Your task to perform on an android device: Go to notification settings Image 0: 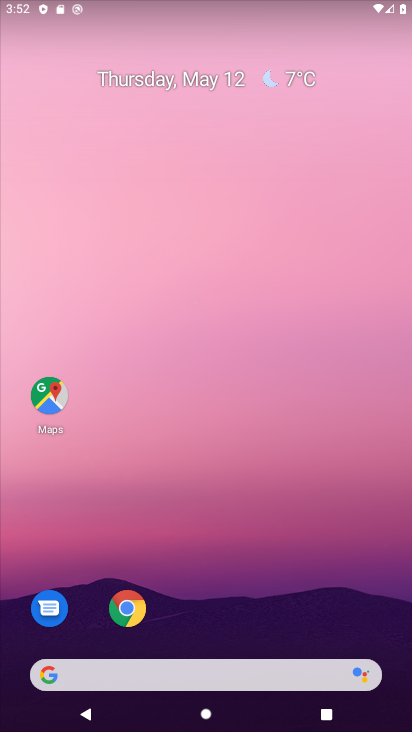
Step 0: drag from (340, 430) to (324, 27)
Your task to perform on an android device: Go to notification settings Image 1: 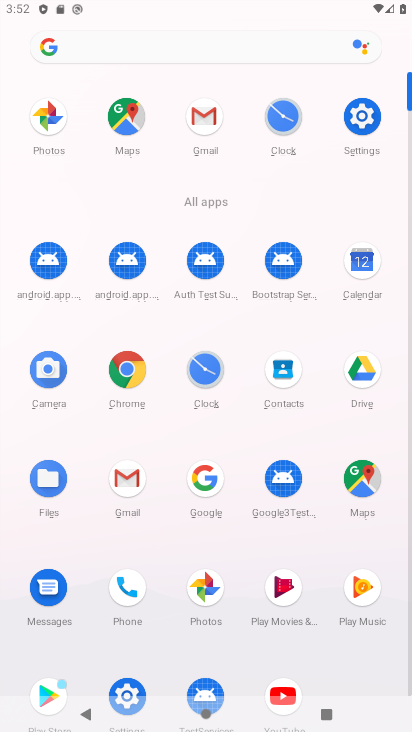
Step 1: drag from (308, 253) to (294, 127)
Your task to perform on an android device: Go to notification settings Image 2: 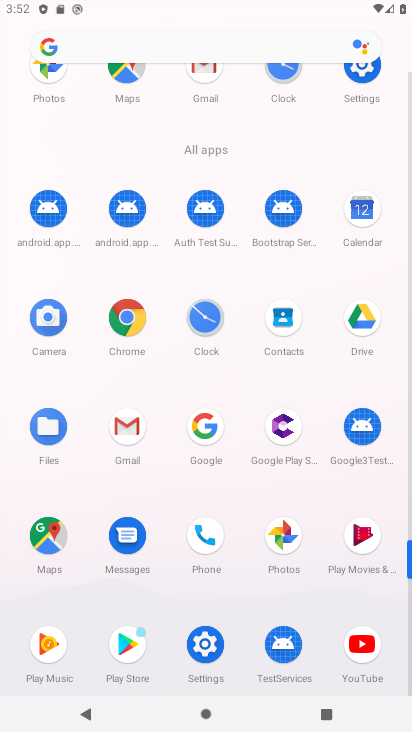
Step 2: click (358, 73)
Your task to perform on an android device: Go to notification settings Image 3: 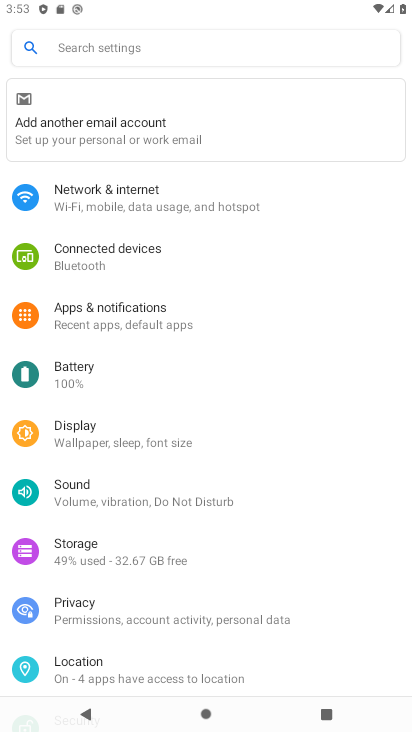
Step 3: click (134, 309)
Your task to perform on an android device: Go to notification settings Image 4: 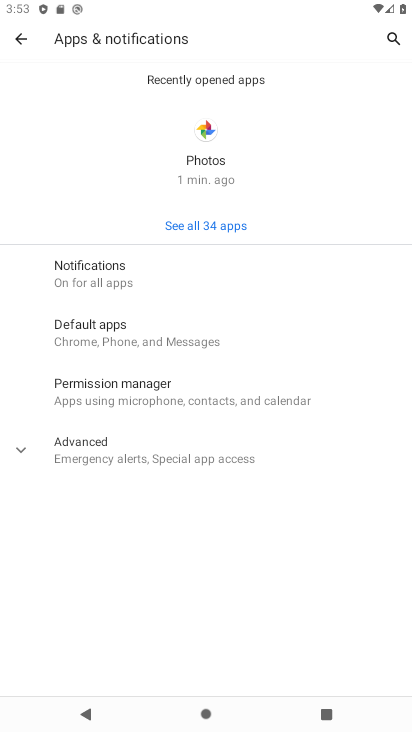
Step 4: click (89, 278)
Your task to perform on an android device: Go to notification settings Image 5: 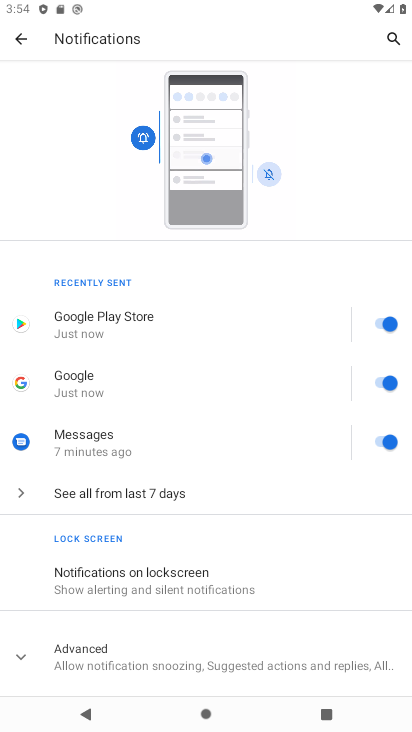
Step 5: task complete